Your task to perform on an android device: all mails in gmail Image 0: 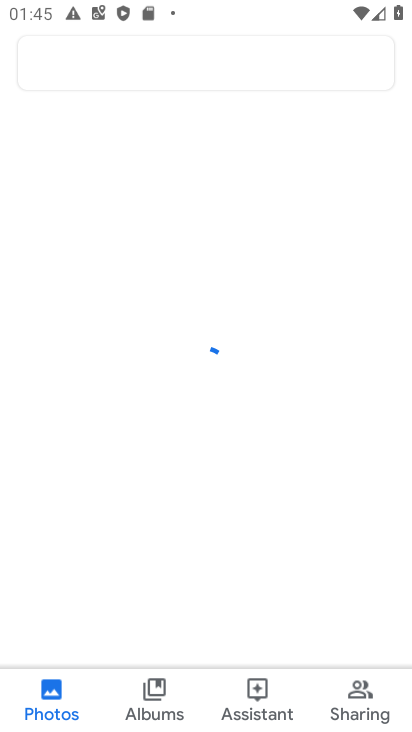
Step 0: press home button
Your task to perform on an android device: all mails in gmail Image 1: 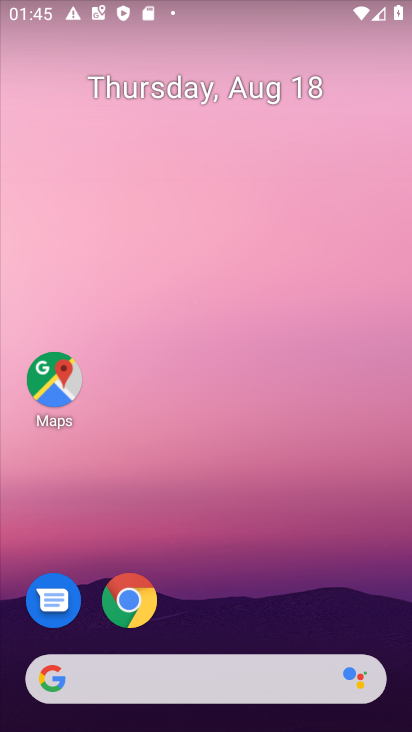
Step 1: drag from (263, 571) to (288, 20)
Your task to perform on an android device: all mails in gmail Image 2: 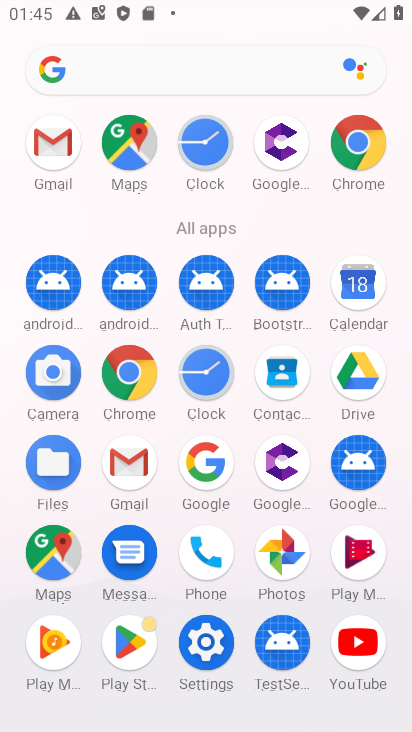
Step 2: click (46, 143)
Your task to perform on an android device: all mails in gmail Image 3: 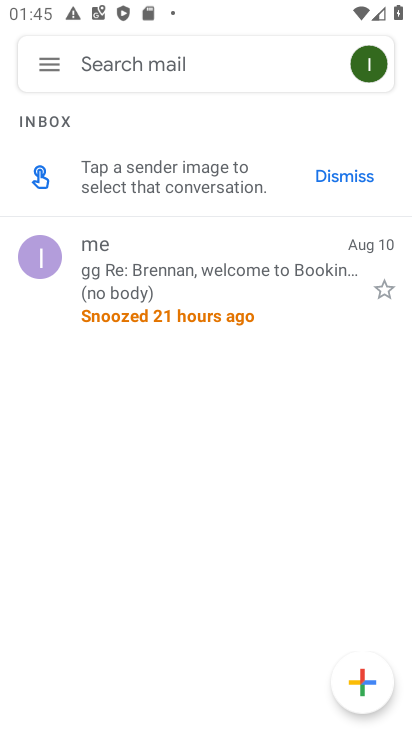
Step 3: click (49, 59)
Your task to perform on an android device: all mails in gmail Image 4: 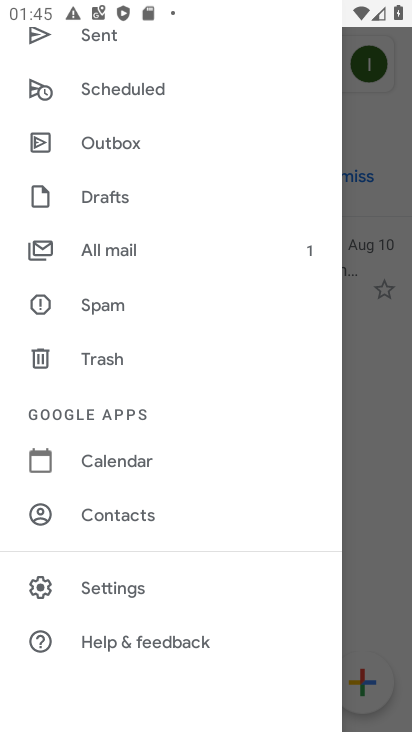
Step 4: click (115, 251)
Your task to perform on an android device: all mails in gmail Image 5: 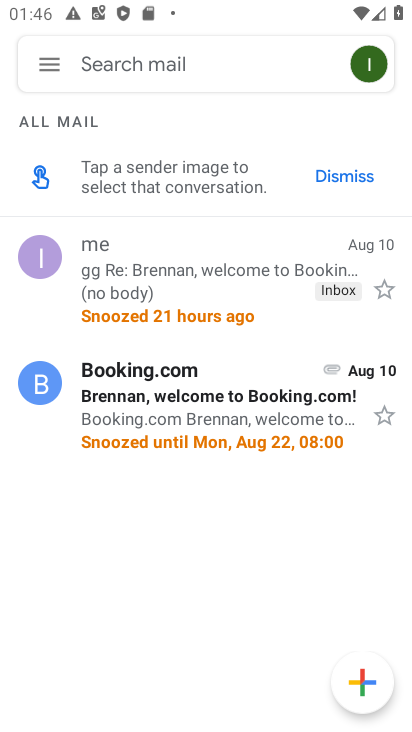
Step 5: task complete